Your task to perform on an android device: Open Google Chrome and open the bookmarks view Image 0: 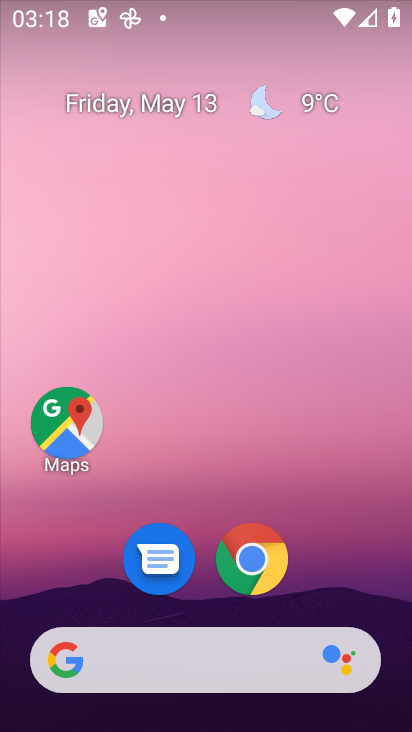
Step 0: click (257, 552)
Your task to perform on an android device: Open Google Chrome and open the bookmarks view Image 1: 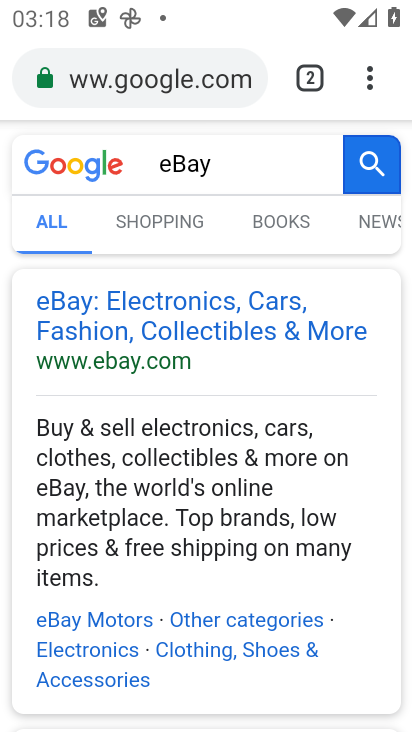
Step 1: click (365, 72)
Your task to perform on an android device: Open Google Chrome and open the bookmarks view Image 2: 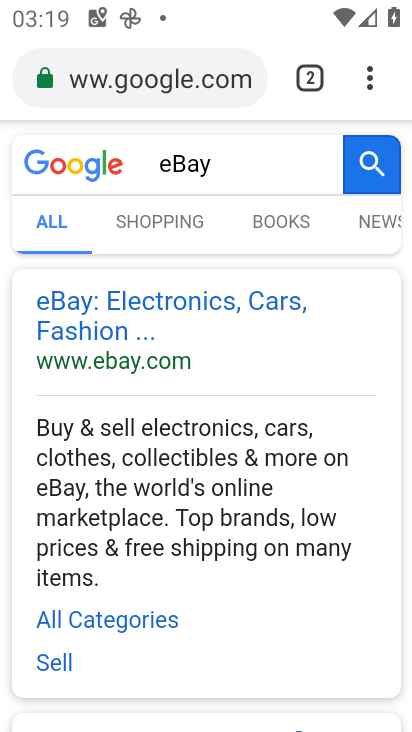
Step 2: click (366, 81)
Your task to perform on an android device: Open Google Chrome and open the bookmarks view Image 3: 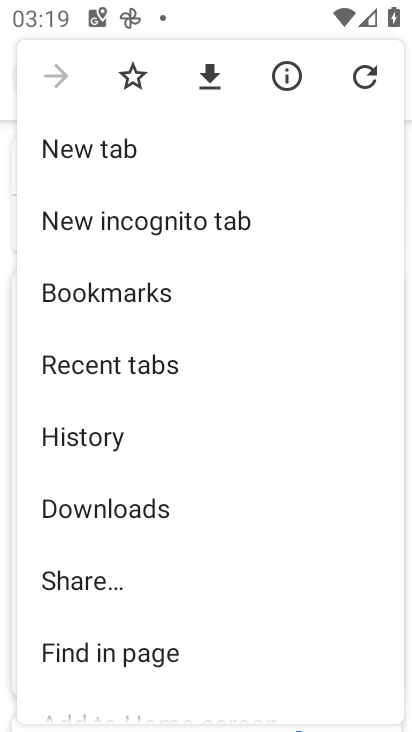
Step 3: click (101, 295)
Your task to perform on an android device: Open Google Chrome and open the bookmarks view Image 4: 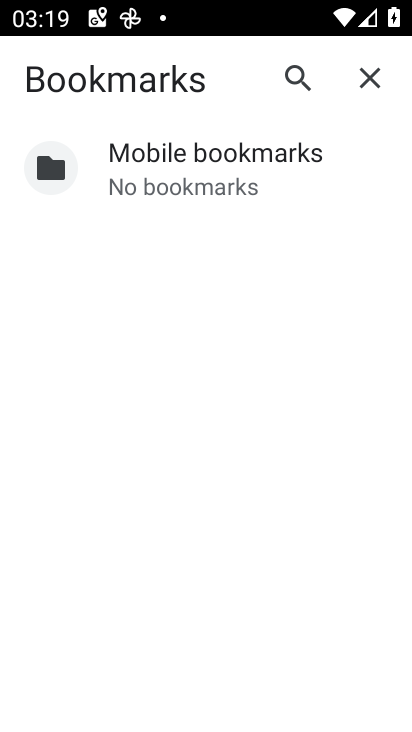
Step 4: click (133, 152)
Your task to perform on an android device: Open Google Chrome and open the bookmarks view Image 5: 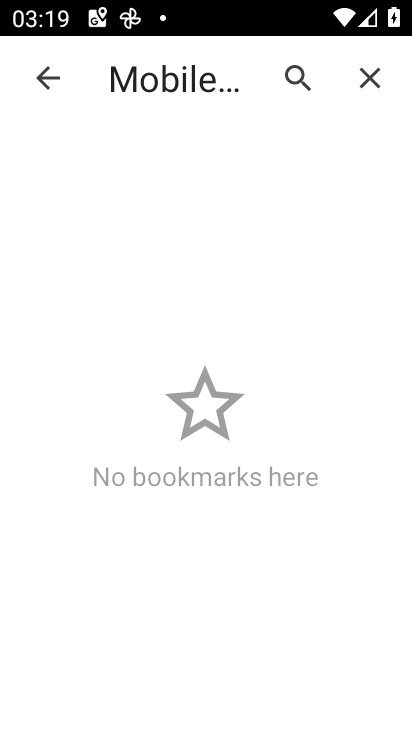
Step 5: task complete